Your task to perform on an android device: Open battery settings Image 0: 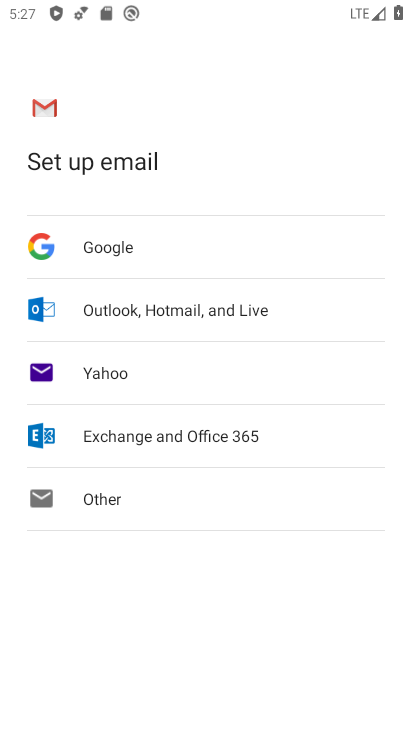
Step 0: press home button
Your task to perform on an android device: Open battery settings Image 1: 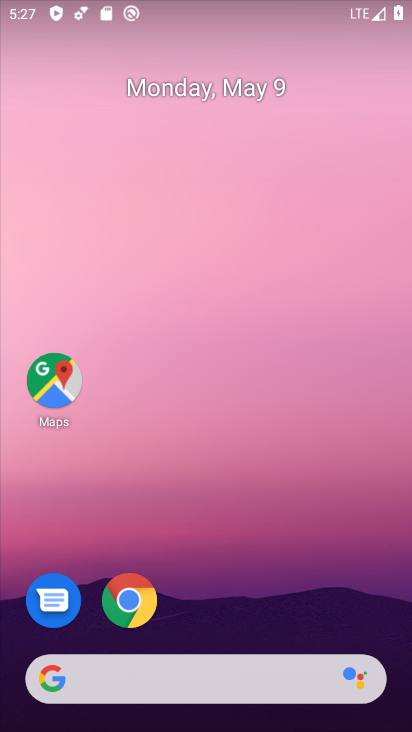
Step 1: drag from (180, 611) to (277, 105)
Your task to perform on an android device: Open battery settings Image 2: 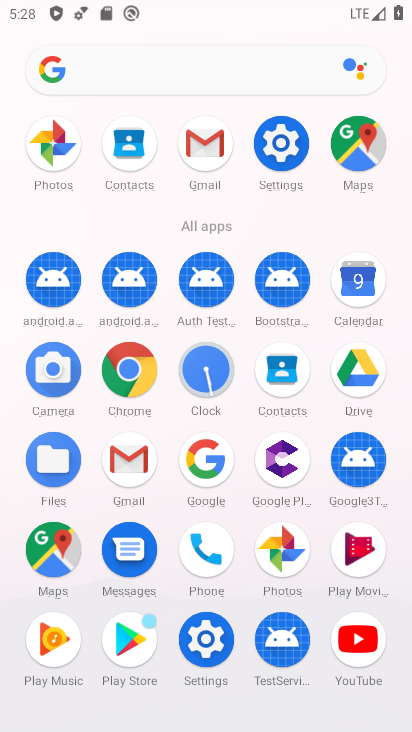
Step 2: click (291, 175)
Your task to perform on an android device: Open battery settings Image 3: 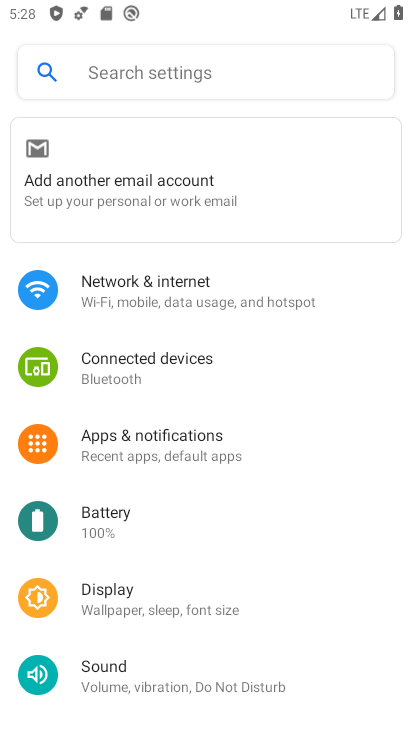
Step 3: click (127, 530)
Your task to perform on an android device: Open battery settings Image 4: 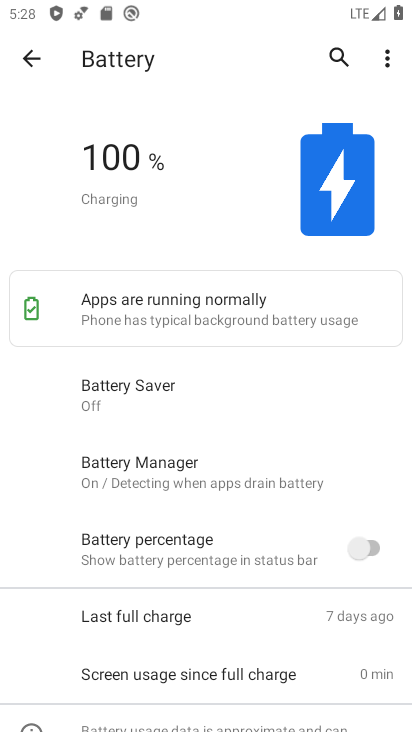
Step 4: task complete